Your task to perform on an android device: Show me recent news Image 0: 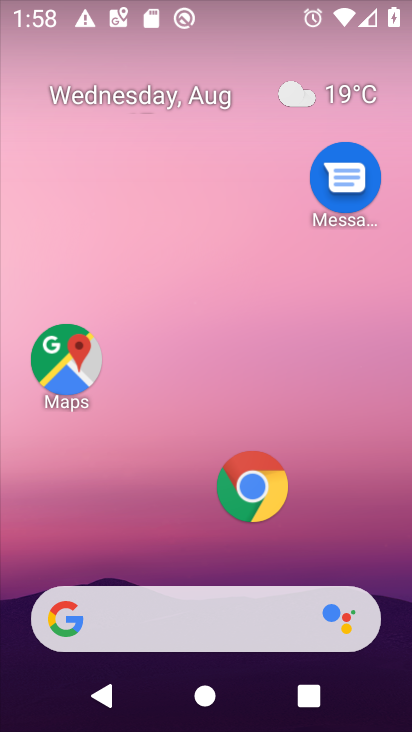
Step 0: click (165, 619)
Your task to perform on an android device: Show me recent news Image 1: 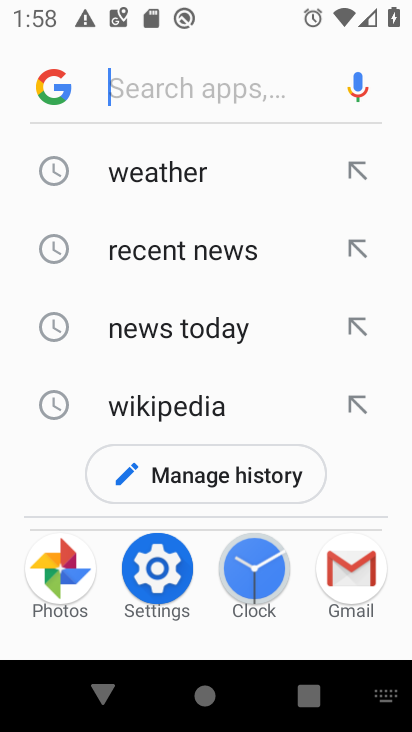
Step 1: click (158, 244)
Your task to perform on an android device: Show me recent news Image 2: 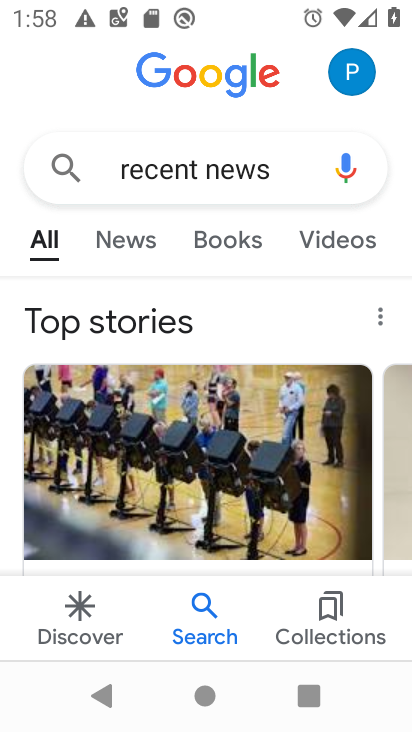
Step 2: task complete